Your task to perform on an android device: Open network settings Image 0: 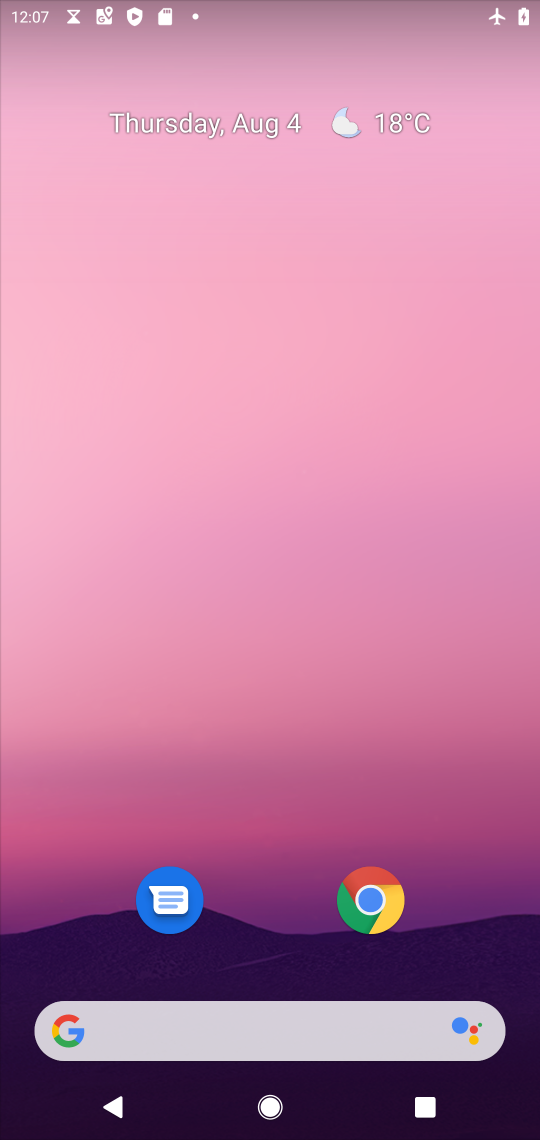
Step 0: drag from (319, 705) to (321, 208)
Your task to perform on an android device: Open network settings Image 1: 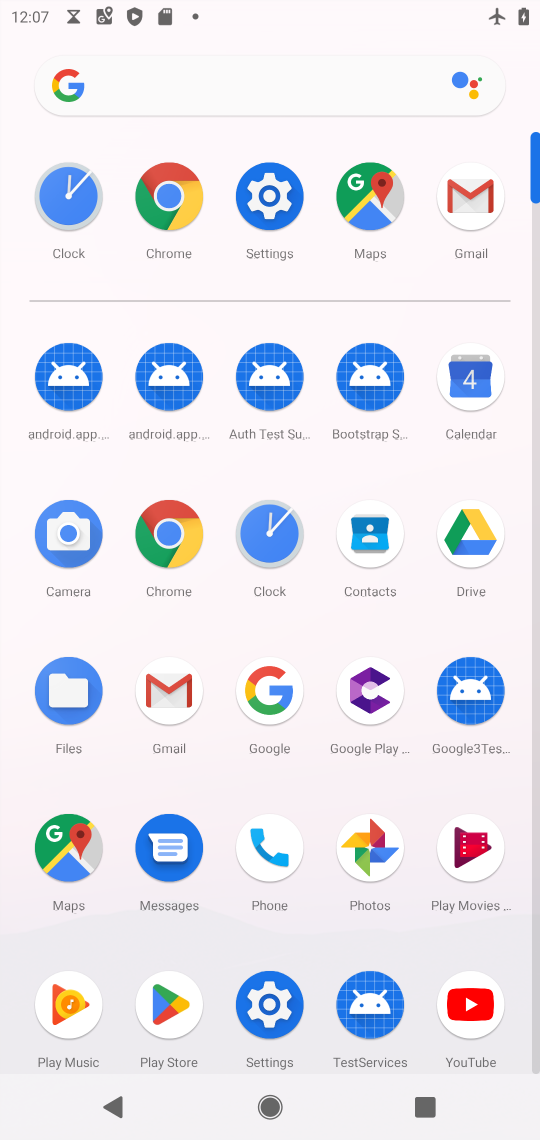
Step 1: click (262, 208)
Your task to perform on an android device: Open network settings Image 2: 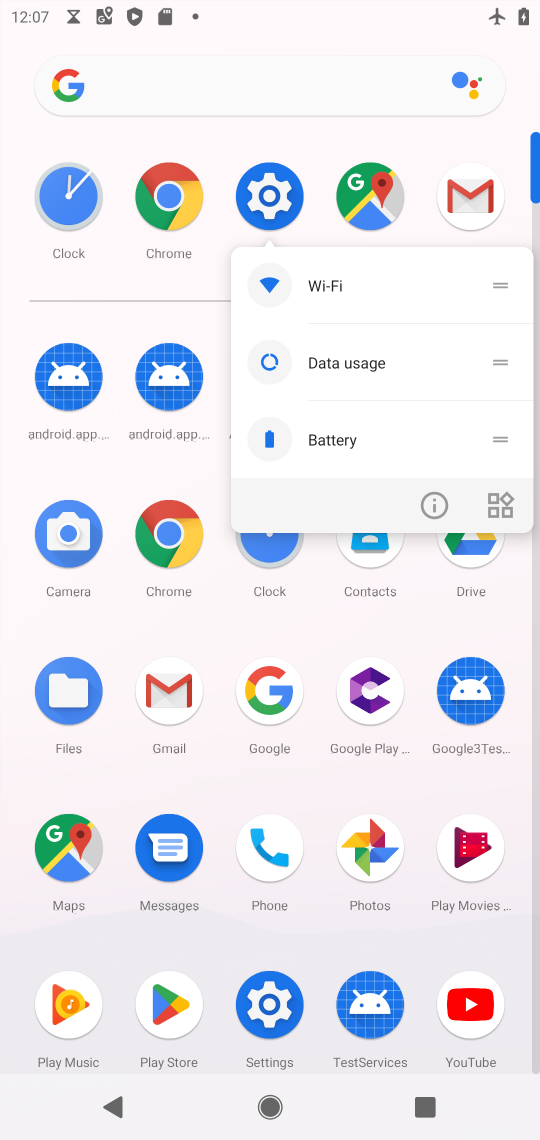
Step 2: click (261, 208)
Your task to perform on an android device: Open network settings Image 3: 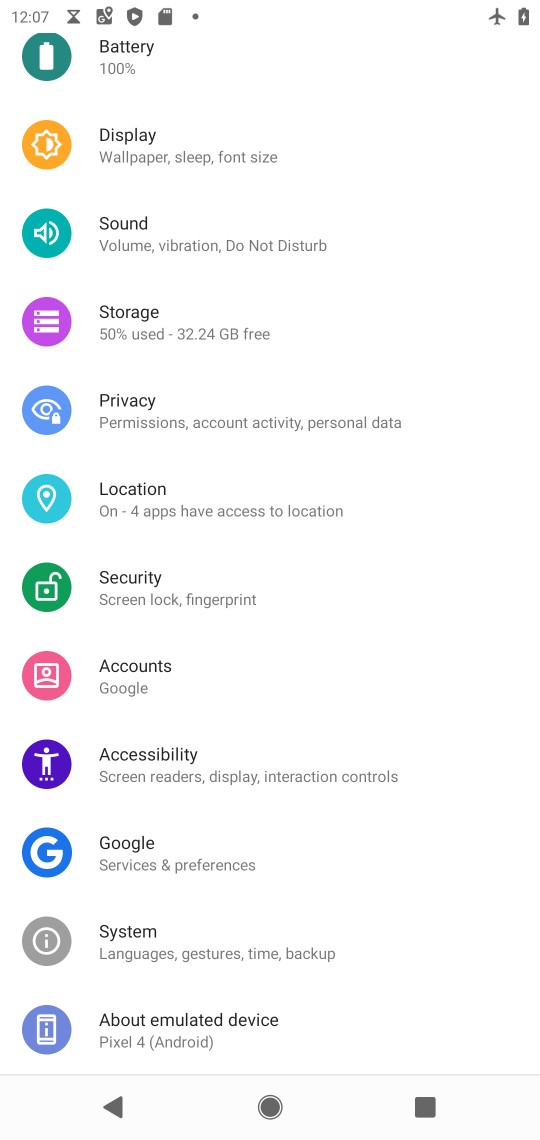
Step 3: drag from (361, 139) to (378, 1020)
Your task to perform on an android device: Open network settings Image 4: 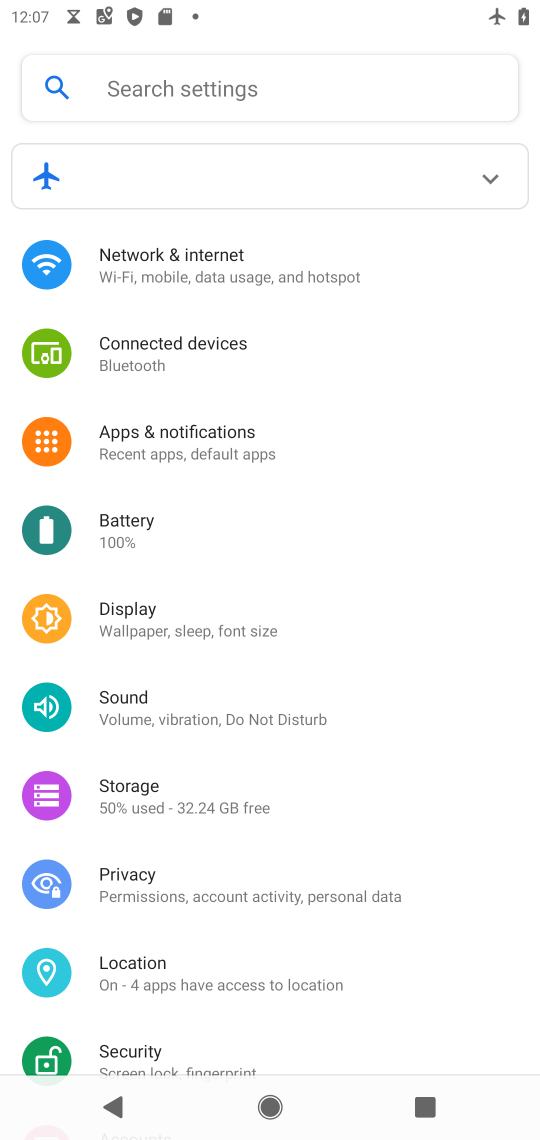
Step 4: click (164, 269)
Your task to perform on an android device: Open network settings Image 5: 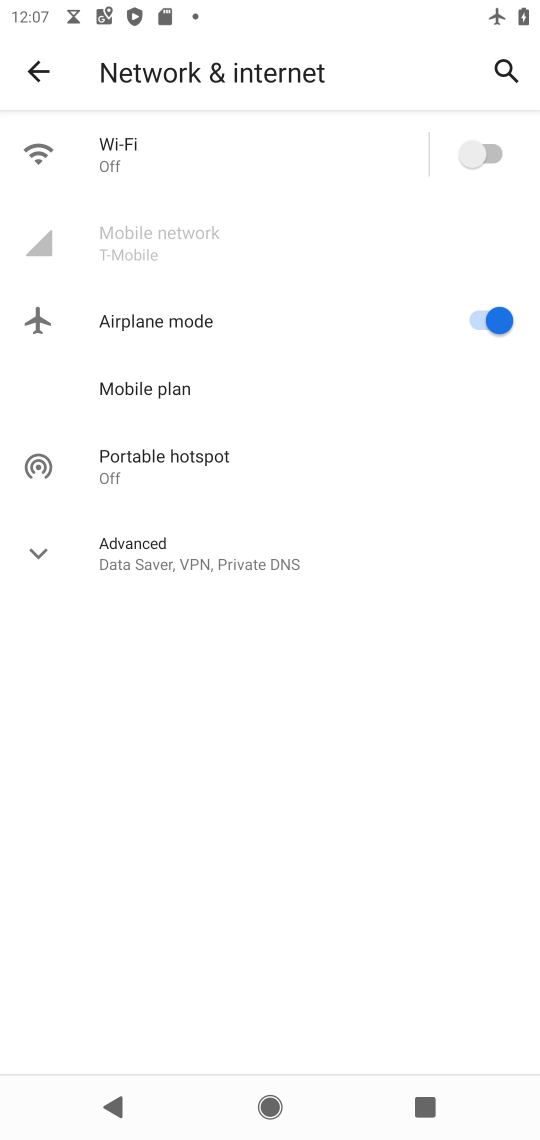
Step 5: task complete